Your task to perform on an android device: turn on javascript in the chrome app Image 0: 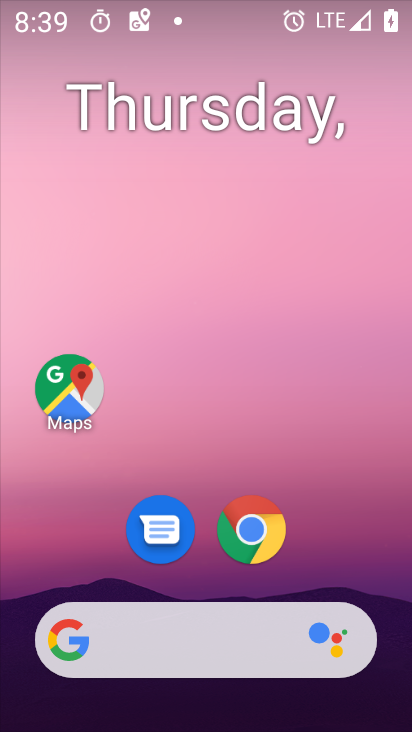
Step 0: drag from (380, 557) to (382, 228)
Your task to perform on an android device: turn on javascript in the chrome app Image 1: 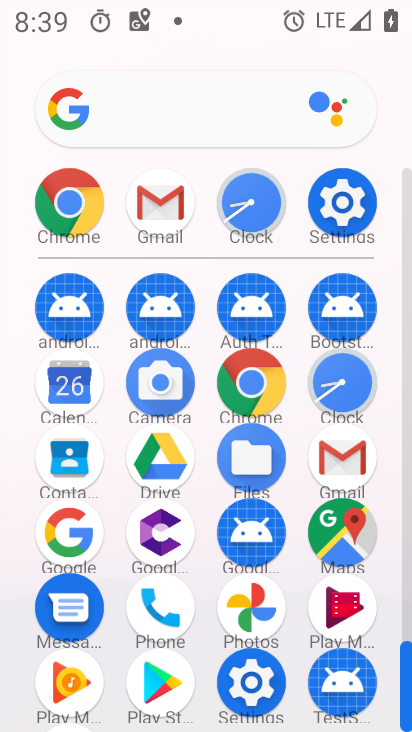
Step 1: click (268, 386)
Your task to perform on an android device: turn on javascript in the chrome app Image 2: 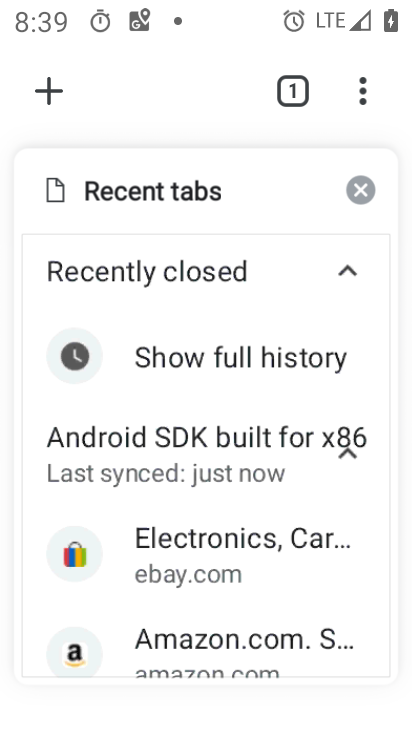
Step 2: press back button
Your task to perform on an android device: turn on javascript in the chrome app Image 3: 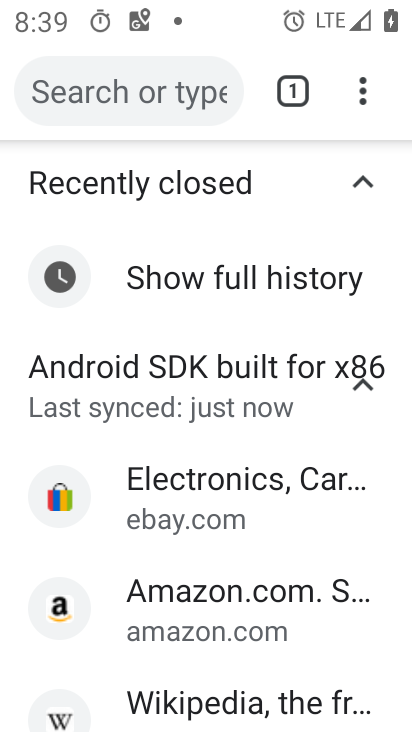
Step 3: click (362, 99)
Your task to perform on an android device: turn on javascript in the chrome app Image 4: 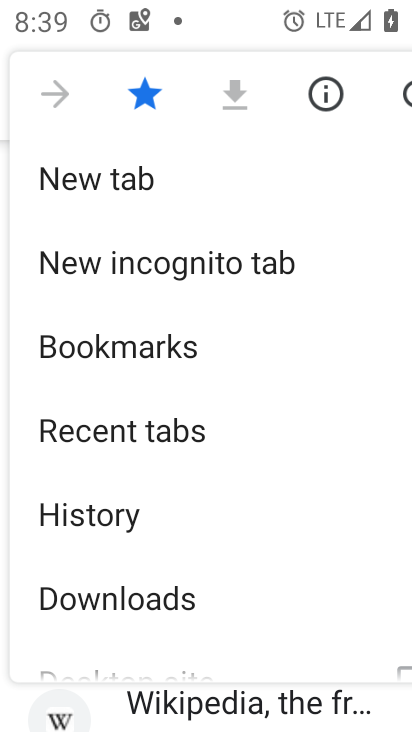
Step 4: drag from (364, 497) to (380, 369)
Your task to perform on an android device: turn on javascript in the chrome app Image 5: 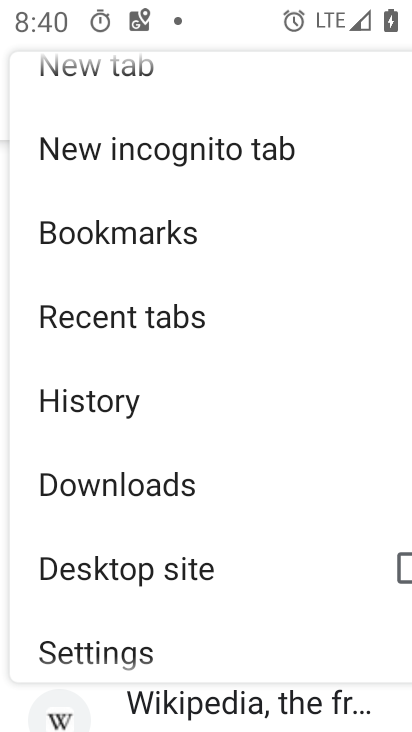
Step 5: drag from (310, 558) to (305, 409)
Your task to perform on an android device: turn on javascript in the chrome app Image 6: 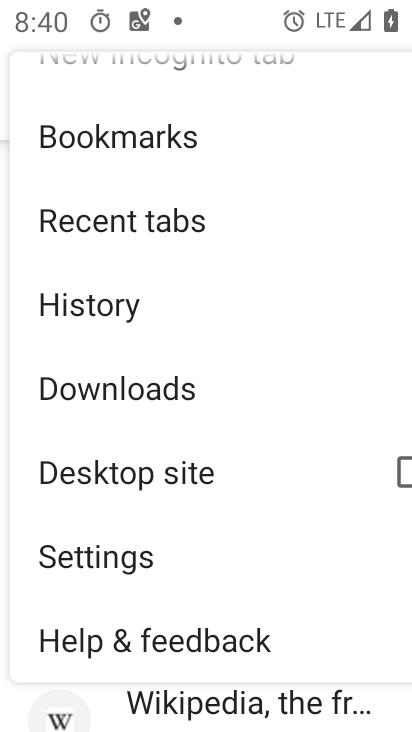
Step 6: drag from (297, 541) to (310, 415)
Your task to perform on an android device: turn on javascript in the chrome app Image 7: 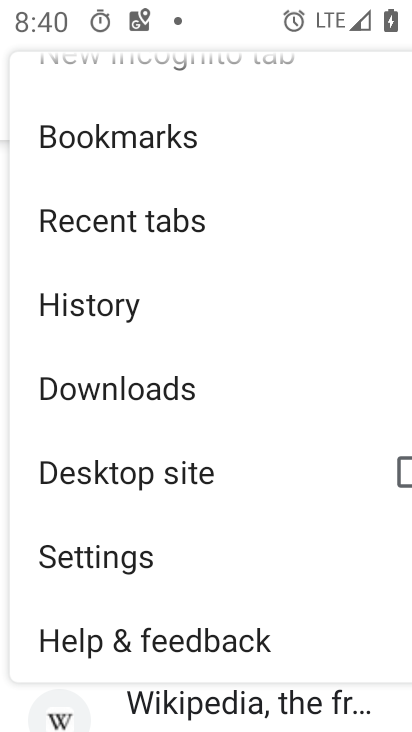
Step 7: click (147, 565)
Your task to perform on an android device: turn on javascript in the chrome app Image 8: 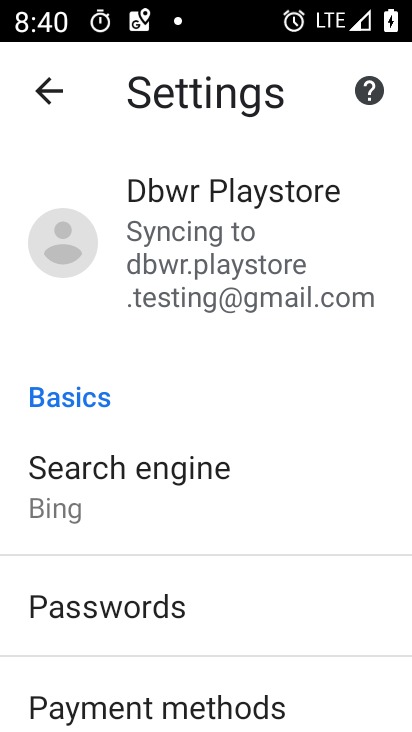
Step 8: drag from (277, 613) to (305, 491)
Your task to perform on an android device: turn on javascript in the chrome app Image 9: 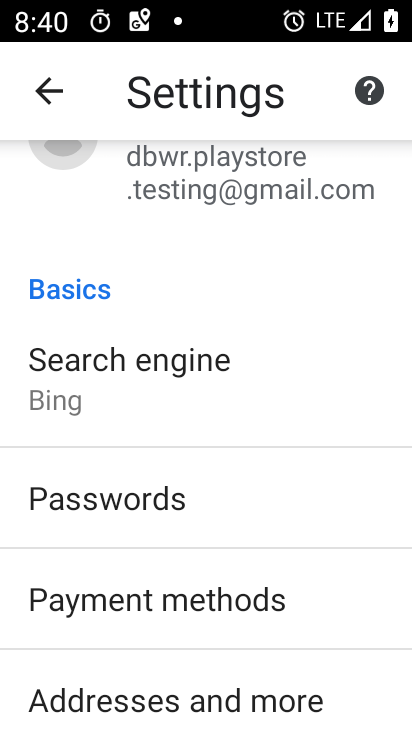
Step 9: drag from (321, 588) to (319, 433)
Your task to perform on an android device: turn on javascript in the chrome app Image 10: 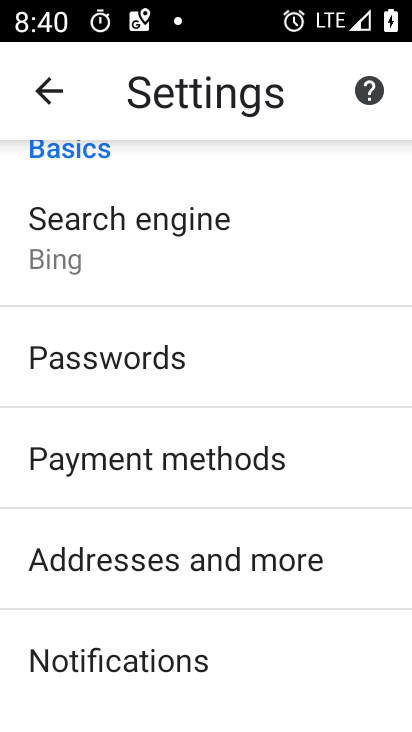
Step 10: drag from (329, 593) to (338, 421)
Your task to perform on an android device: turn on javascript in the chrome app Image 11: 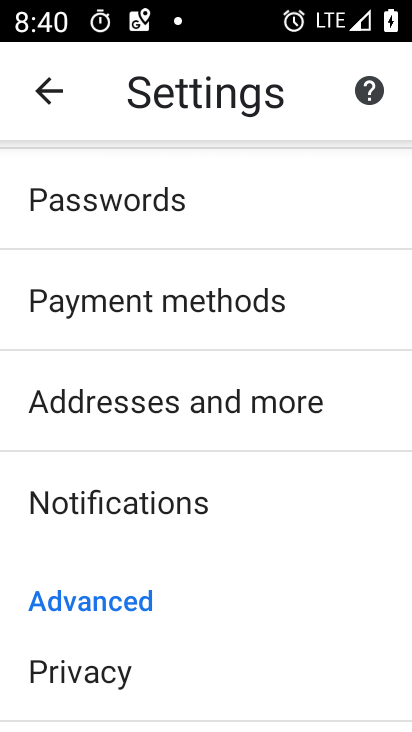
Step 11: drag from (297, 570) to (298, 414)
Your task to perform on an android device: turn on javascript in the chrome app Image 12: 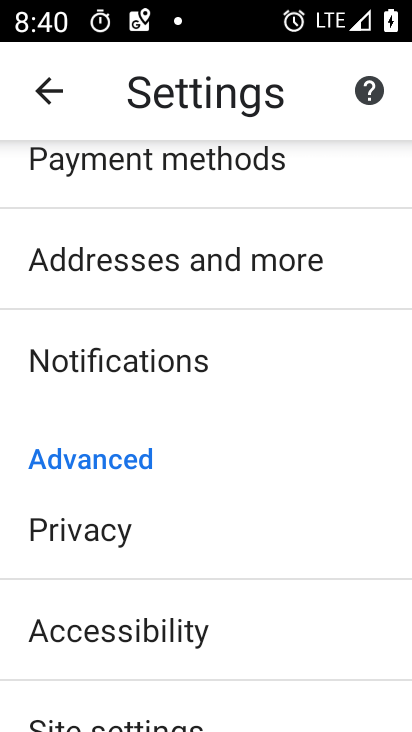
Step 12: drag from (301, 519) to (304, 368)
Your task to perform on an android device: turn on javascript in the chrome app Image 13: 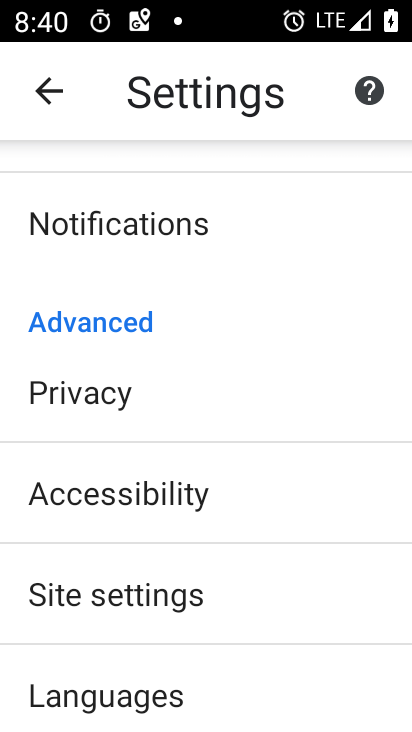
Step 13: drag from (323, 555) to (325, 430)
Your task to perform on an android device: turn on javascript in the chrome app Image 14: 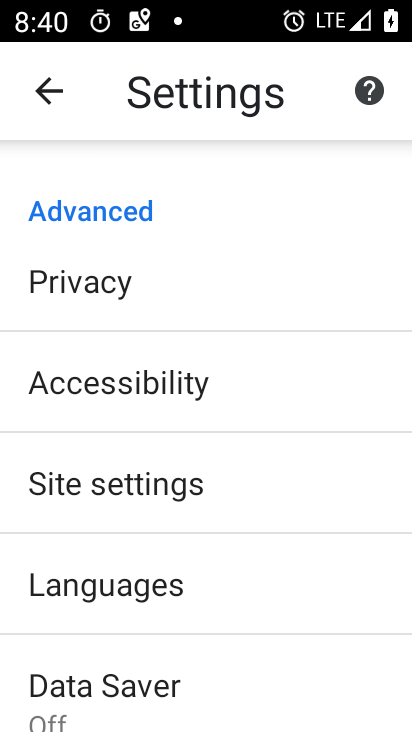
Step 14: drag from (305, 561) to (308, 436)
Your task to perform on an android device: turn on javascript in the chrome app Image 15: 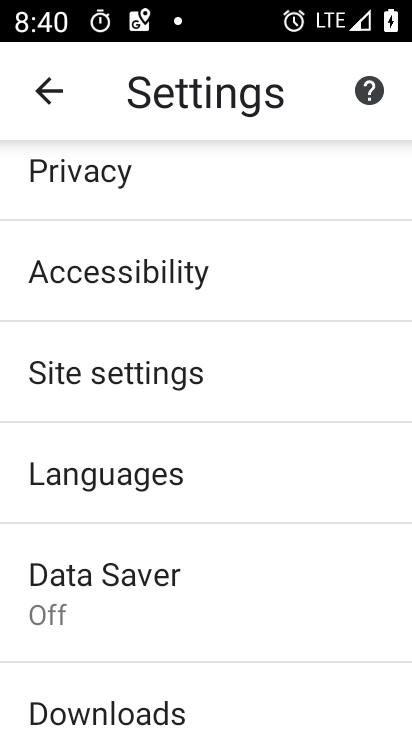
Step 15: click (292, 398)
Your task to perform on an android device: turn on javascript in the chrome app Image 16: 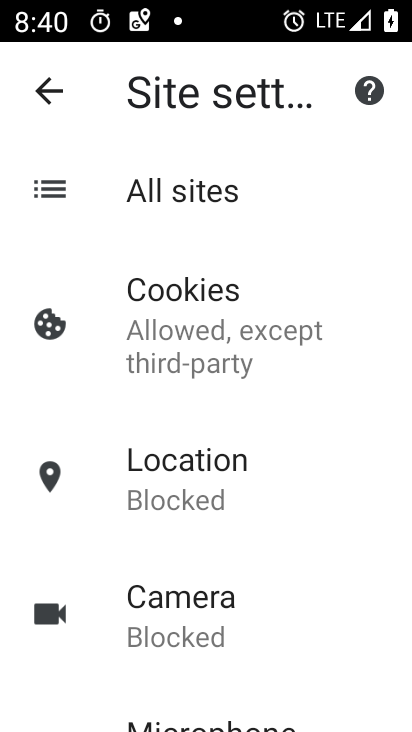
Step 16: drag from (318, 552) to (327, 452)
Your task to perform on an android device: turn on javascript in the chrome app Image 17: 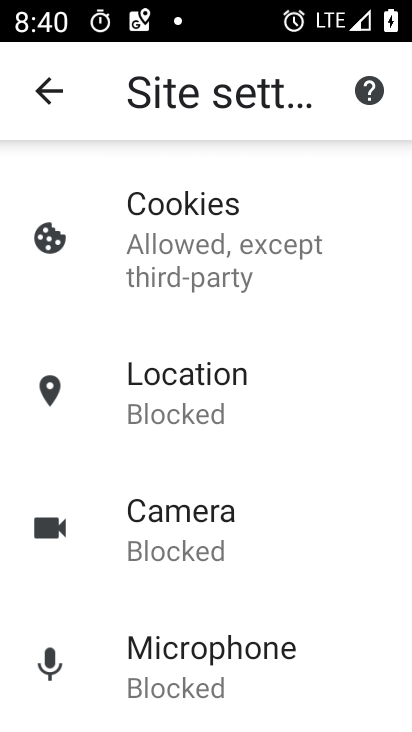
Step 17: drag from (342, 557) to (339, 441)
Your task to perform on an android device: turn on javascript in the chrome app Image 18: 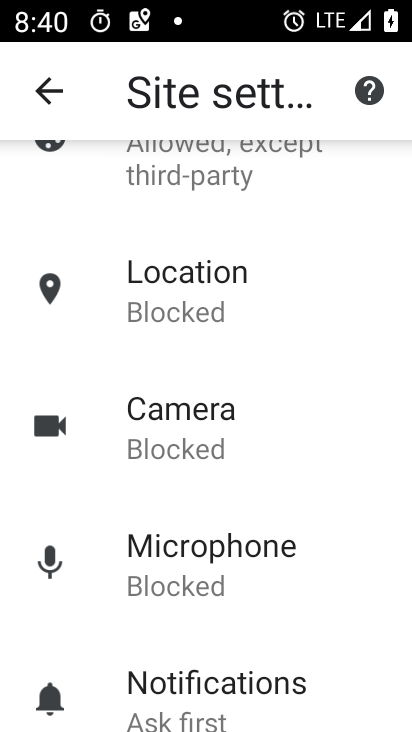
Step 18: drag from (344, 562) to (341, 448)
Your task to perform on an android device: turn on javascript in the chrome app Image 19: 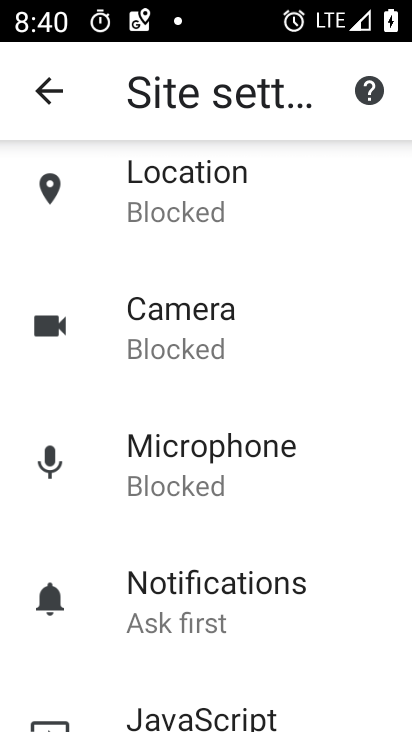
Step 19: drag from (351, 603) to (347, 495)
Your task to perform on an android device: turn on javascript in the chrome app Image 20: 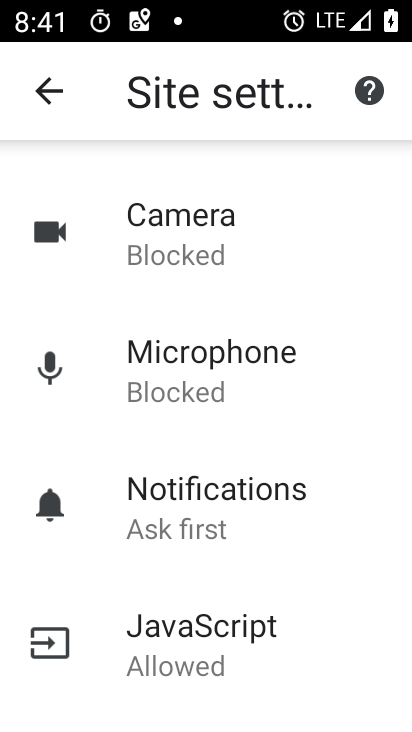
Step 20: click (298, 650)
Your task to perform on an android device: turn on javascript in the chrome app Image 21: 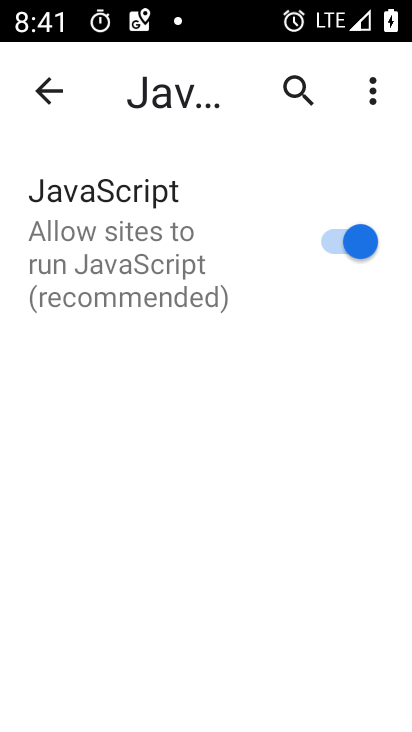
Step 21: task complete